Your task to perform on an android device: Open my contact list Image 0: 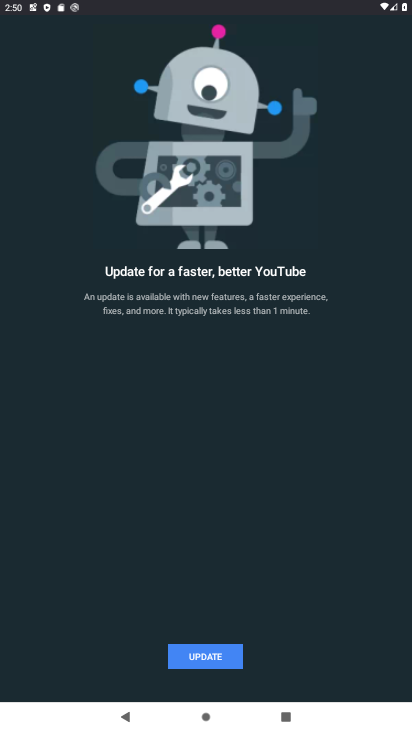
Step 0: press home button
Your task to perform on an android device: Open my contact list Image 1: 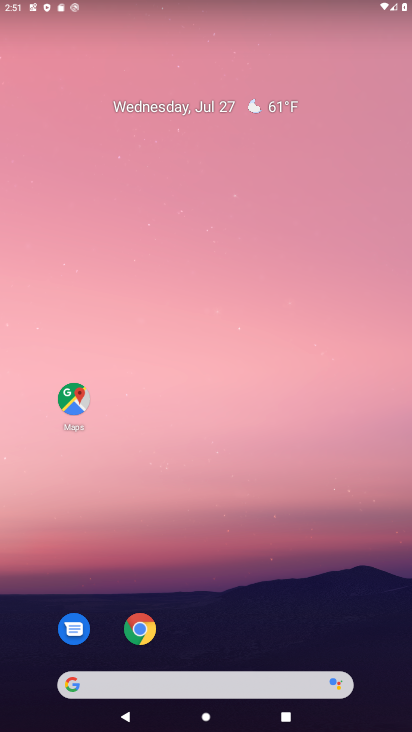
Step 1: drag from (193, 690) to (337, 24)
Your task to perform on an android device: Open my contact list Image 2: 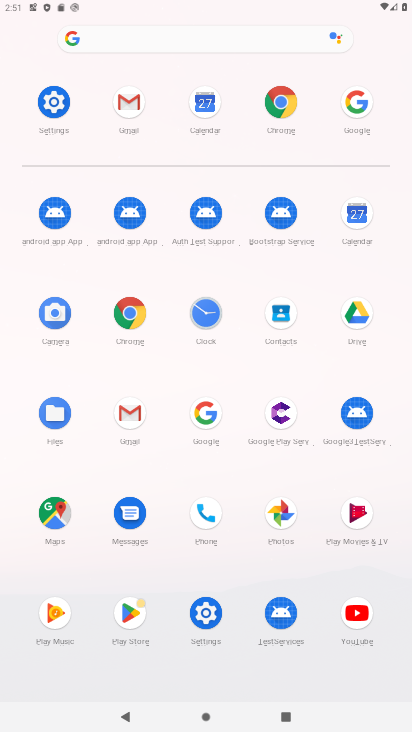
Step 2: click (279, 314)
Your task to perform on an android device: Open my contact list Image 3: 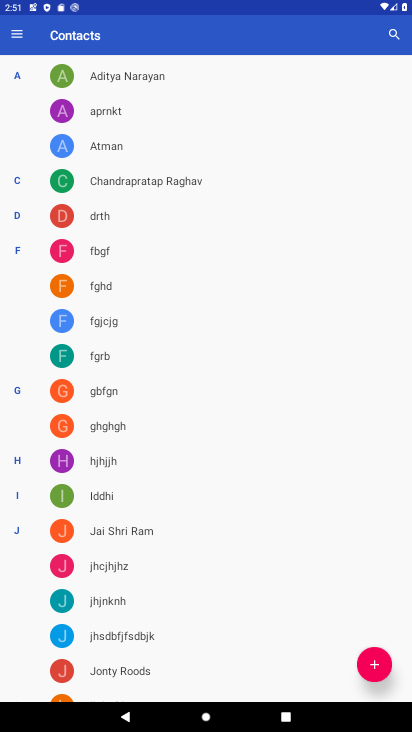
Step 3: task complete